Your task to perform on an android device: Go to Reddit.com Image 0: 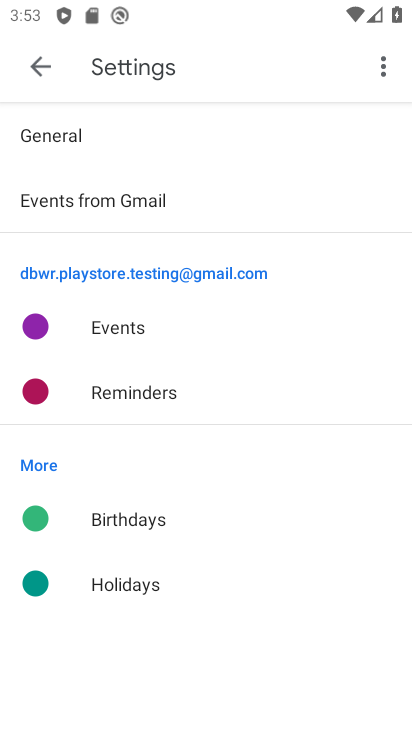
Step 0: press home button
Your task to perform on an android device: Go to Reddit.com Image 1: 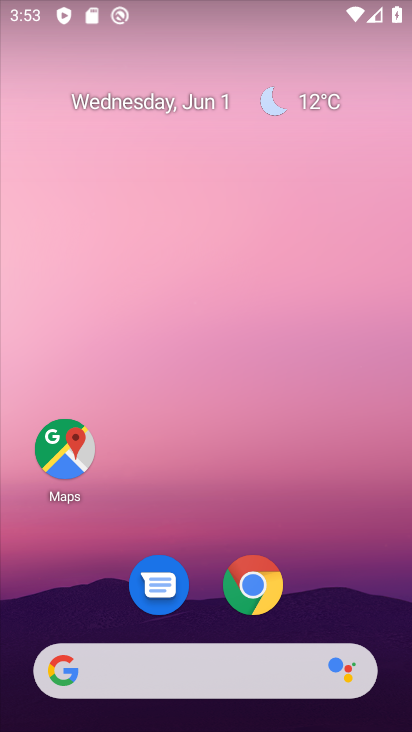
Step 1: click (211, 677)
Your task to perform on an android device: Go to Reddit.com Image 2: 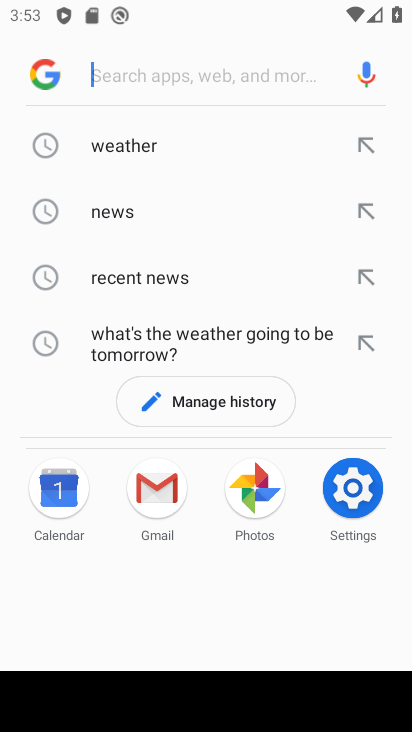
Step 2: type "reddit.com"
Your task to perform on an android device: Go to Reddit.com Image 3: 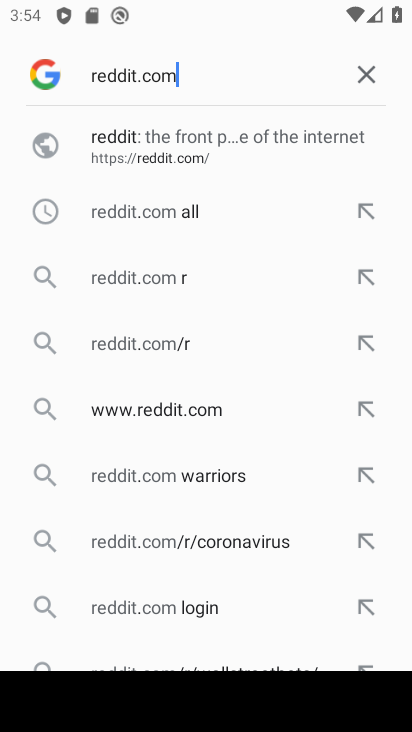
Step 3: click (145, 147)
Your task to perform on an android device: Go to Reddit.com Image 4: 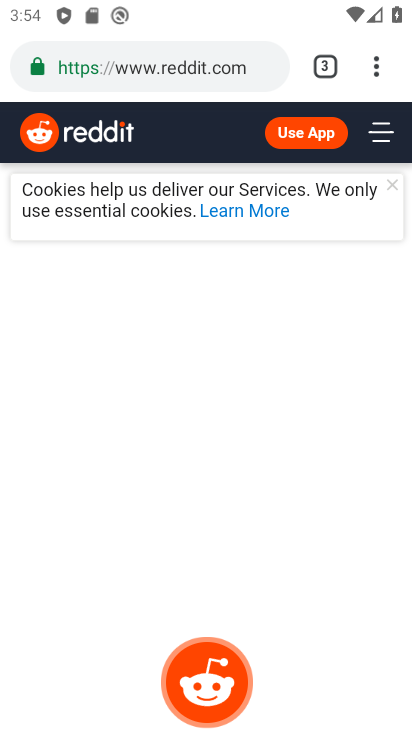
Step 4: task complete